Your task to perform on an android device: open device folders in google photos Image 0: 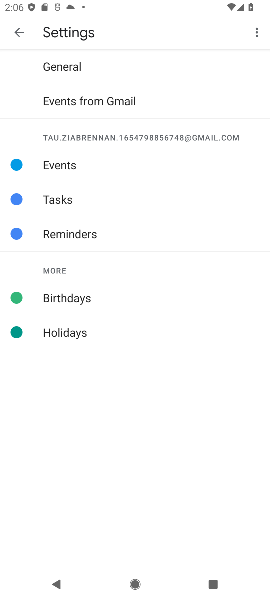
Step 0: press home button
Your task to perform on an android device: open device folders in google photos Image 1: 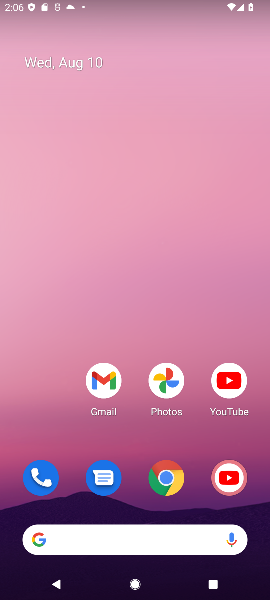
Step 1: click (161, 376)
Your task to perform on an android device: open device folders in google photos Image 2: 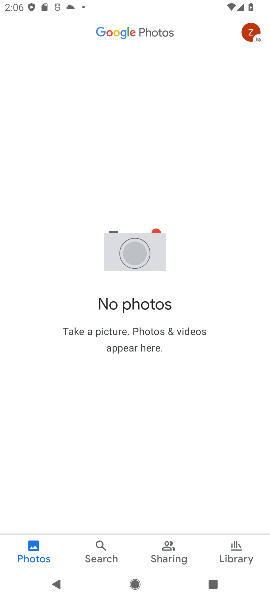
Step 2: task complete